Your task to perform on an android device: Search for "usb-c" on newegg, select the first entry, add it to the cart, then select checkout. Image 0: 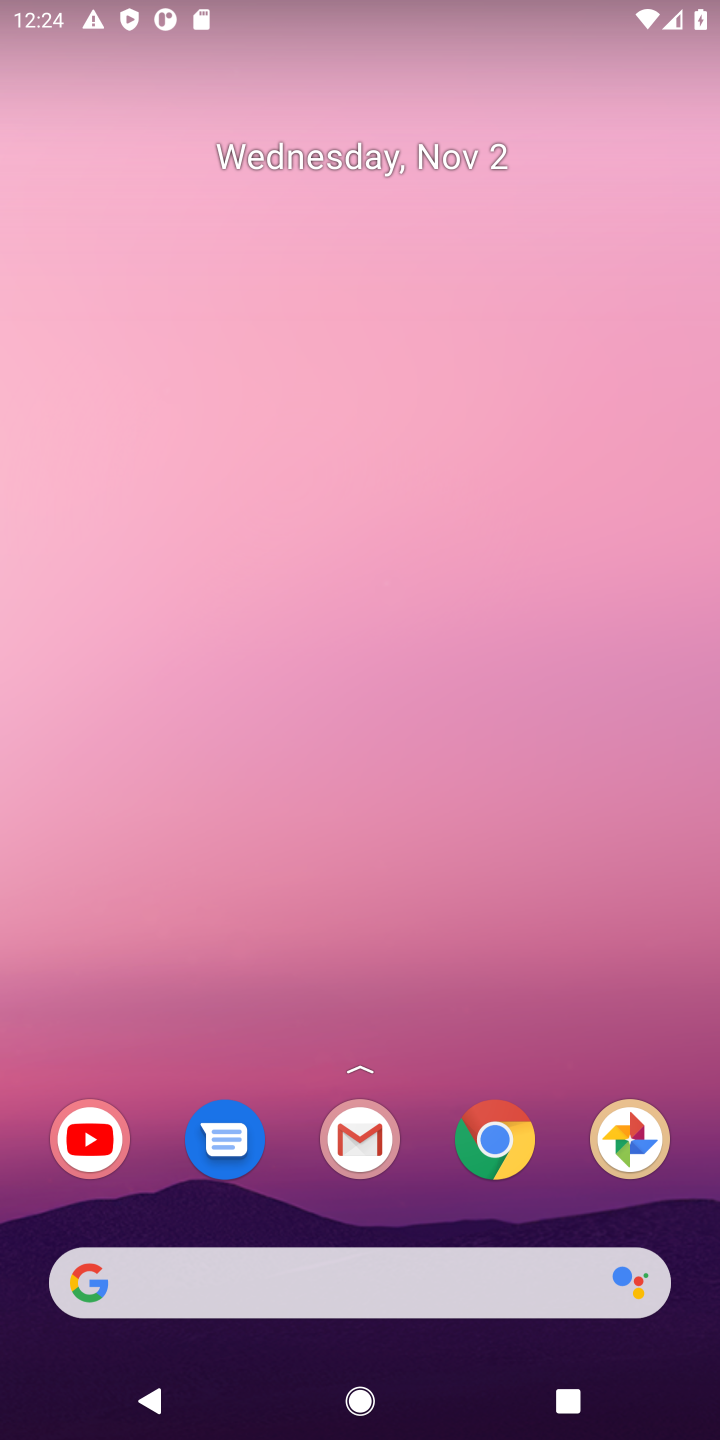
Step 0: press home button
Your task to perform on an android device: Search for "usb-c" on newegg, select the first entry, add it to the cart, then select checkout. Image 1: 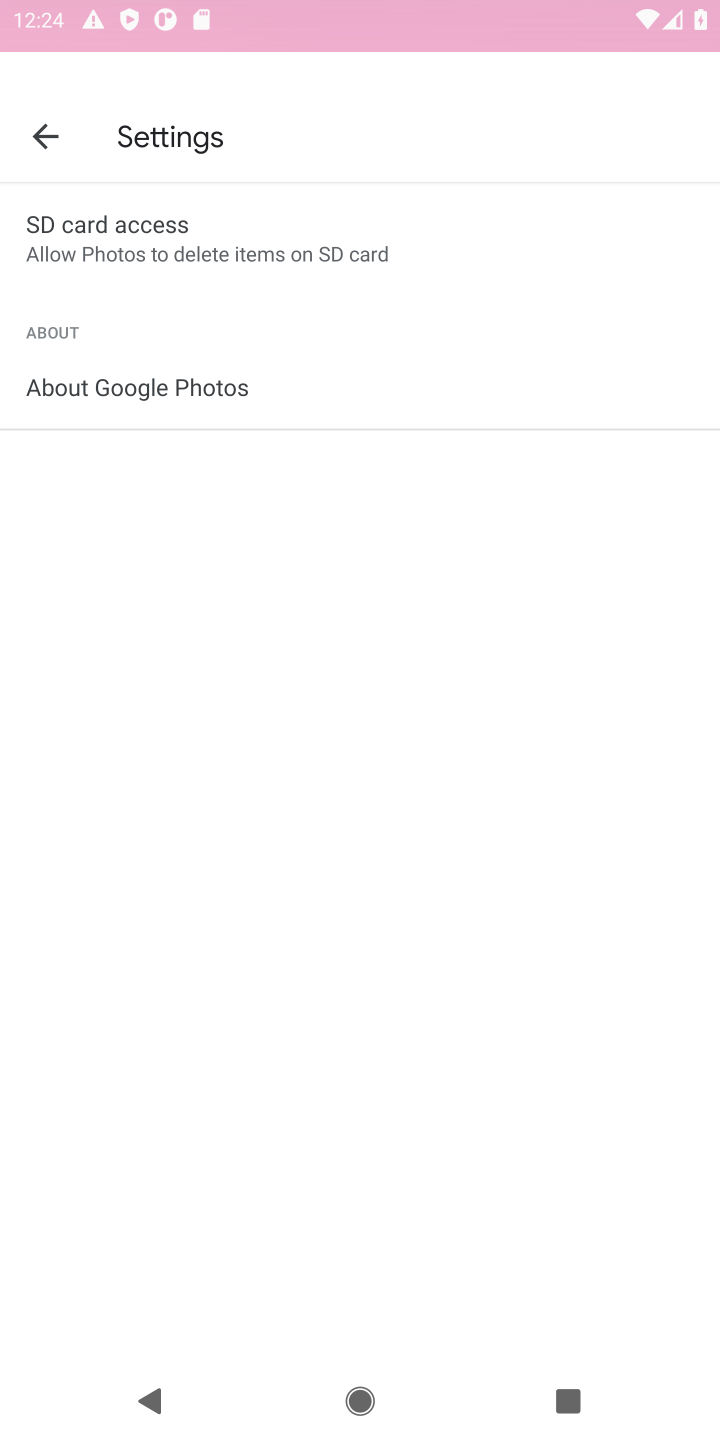
Step 1: press home button
Your task to perform on an android device: Search for "usb-c" on newegg, select the first entry, add it to the cart, then select checkout. Image 2: 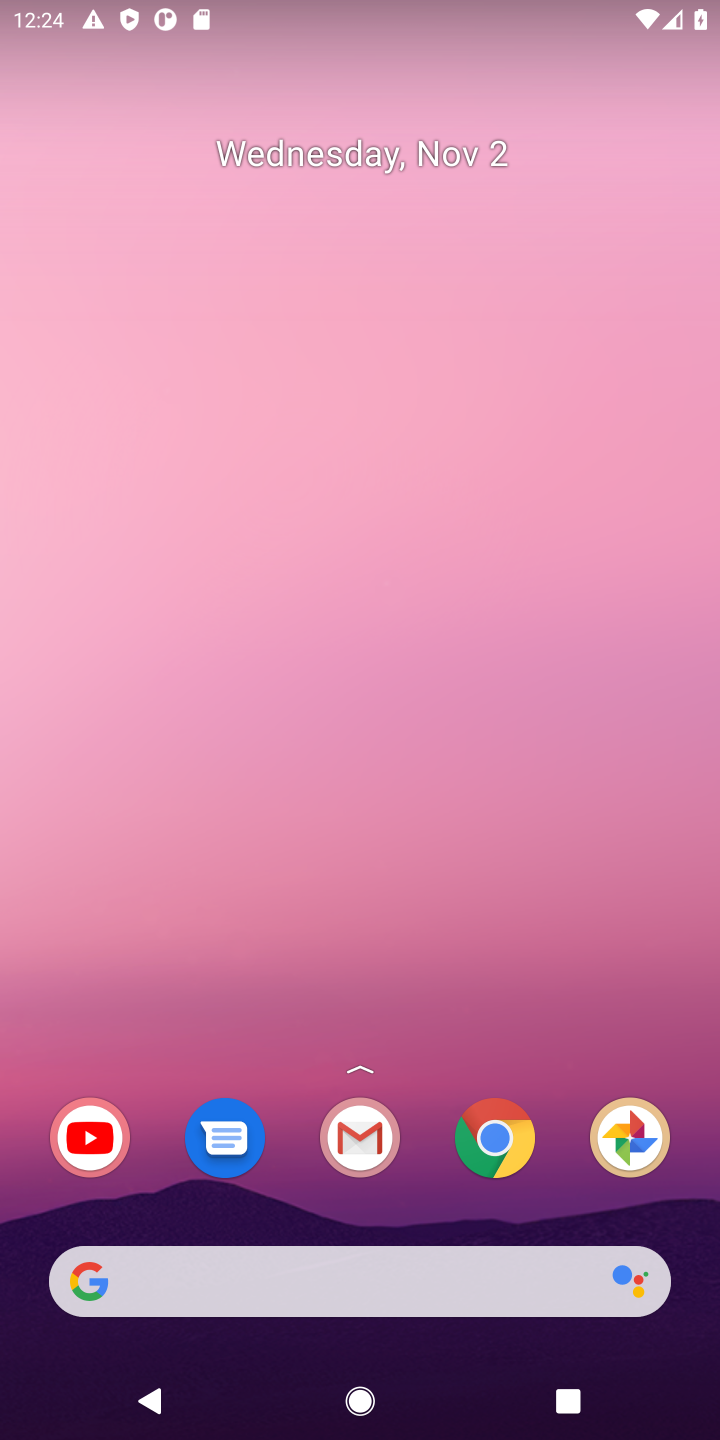
Step 2: click (148, 1279)
Your task to perform on an android device: Search for "usb-c" on newegg, select the first entry, add it to the cart, then select checkout. Image 3: 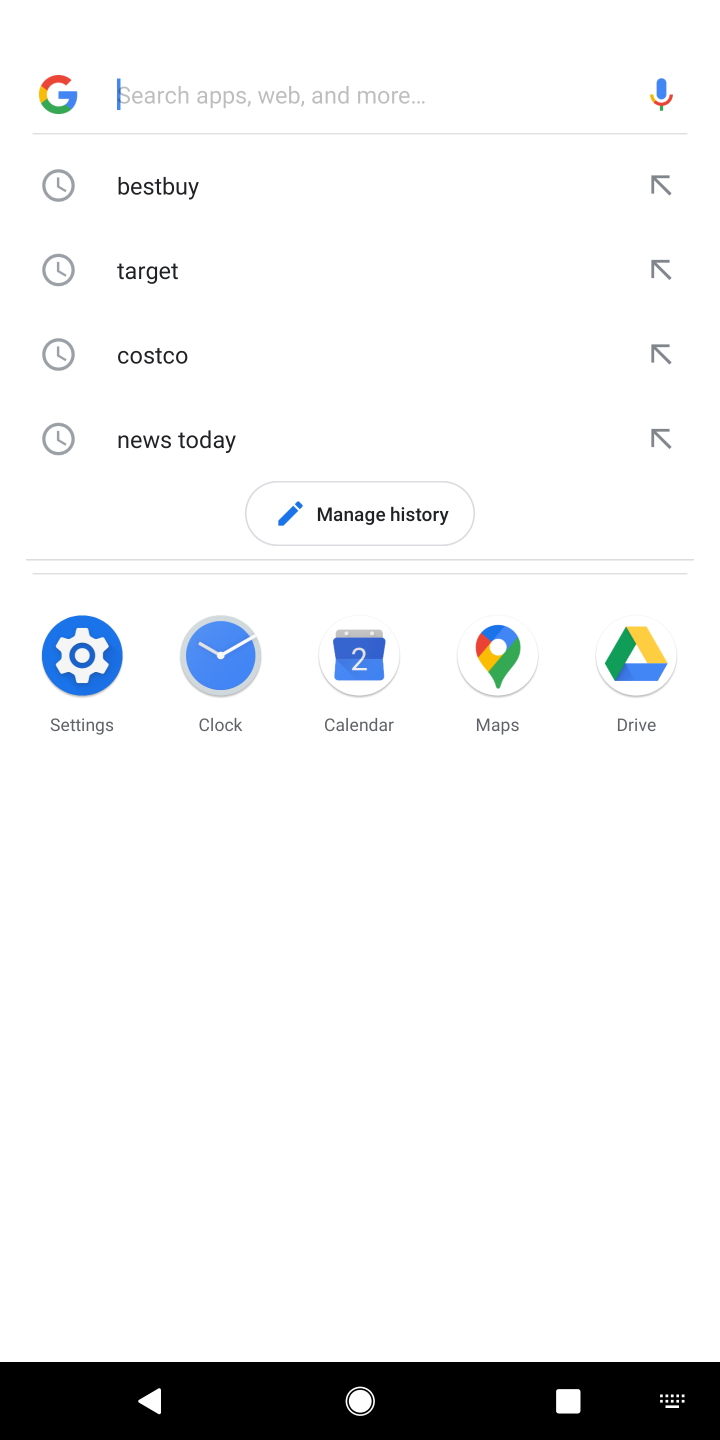
Step 3: press enter
Your task to perform on an android device: Search for "usb-c" on newegg, select the first entry, add it to the cart, then select checkout. Image 4: 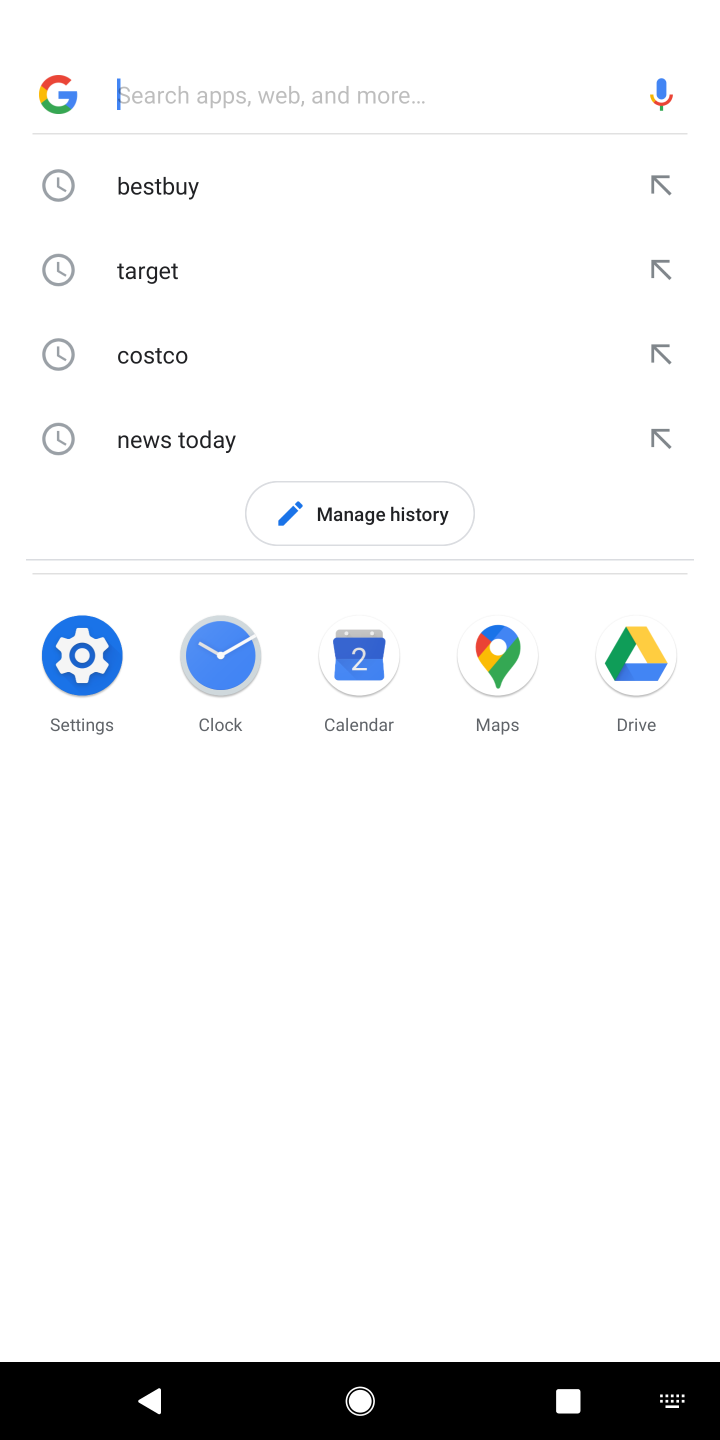
Step 4: type "newegg"
Your task to perform on an android device: Search for "usb-c" on newegg, select the first entry, add it to the cart, then select checkout. Image 5: 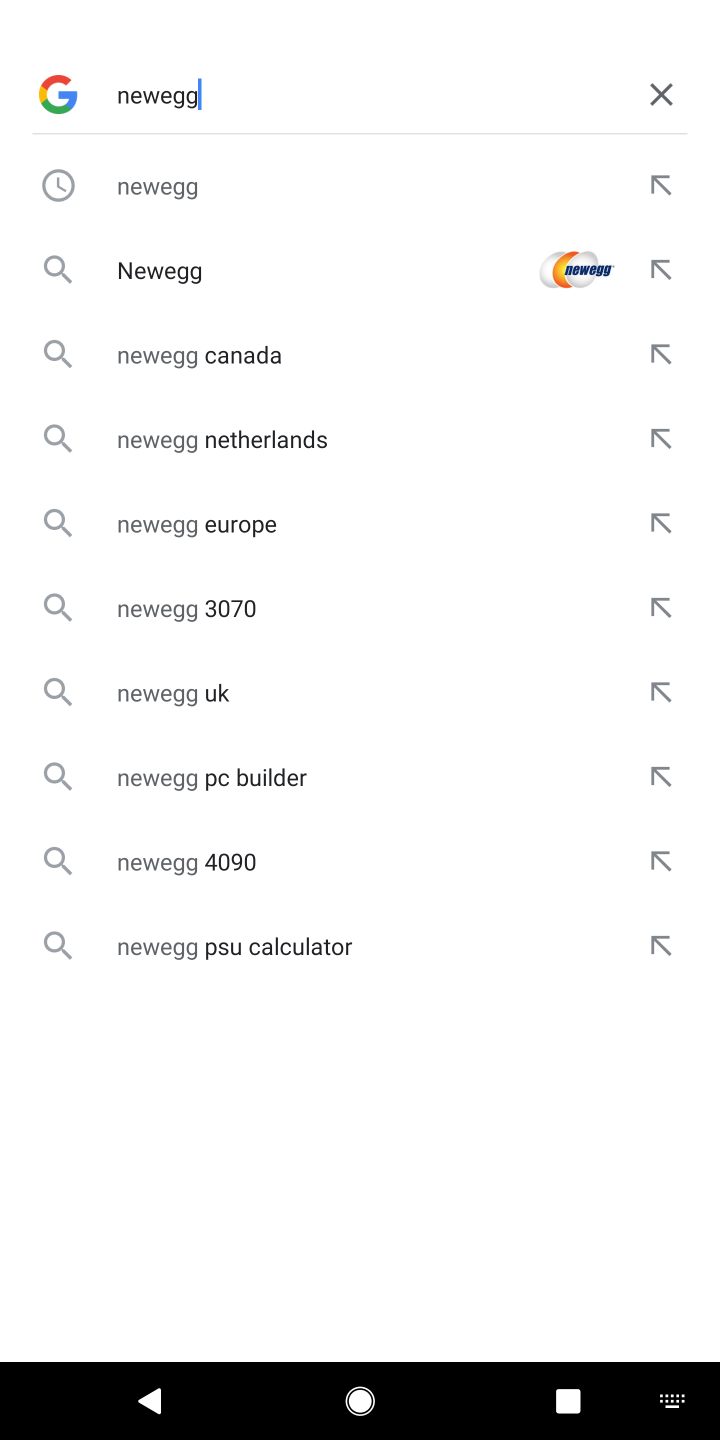
Step 5: press enter
Your task to perform on an android device: Search for "usb-c" on newegg, select the first entry, add it to the cart, then select checkout. Image 6: 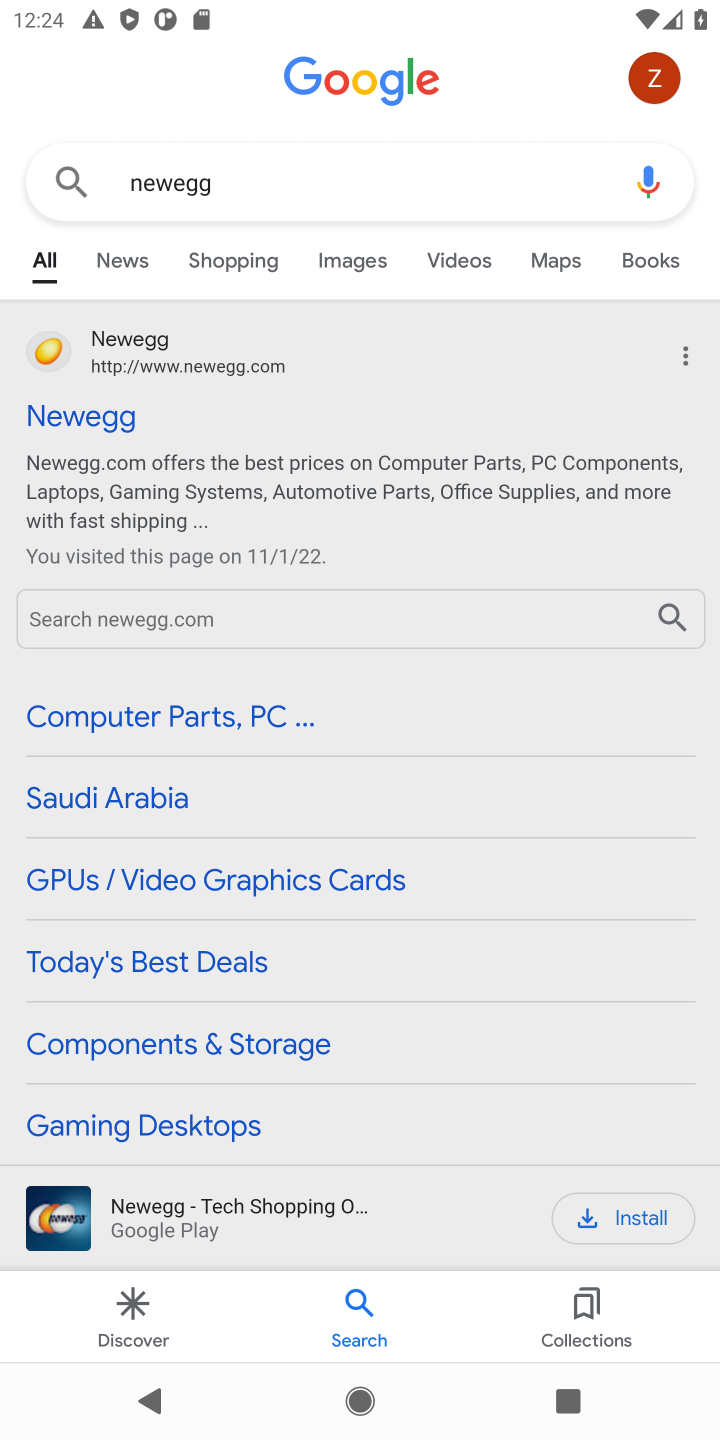
Step 6: click (50, 411)
Your task to perform on an android device: Search for "usb-c" on newegg, select the first entry, add it to the cart, then select checkout. Image 7: 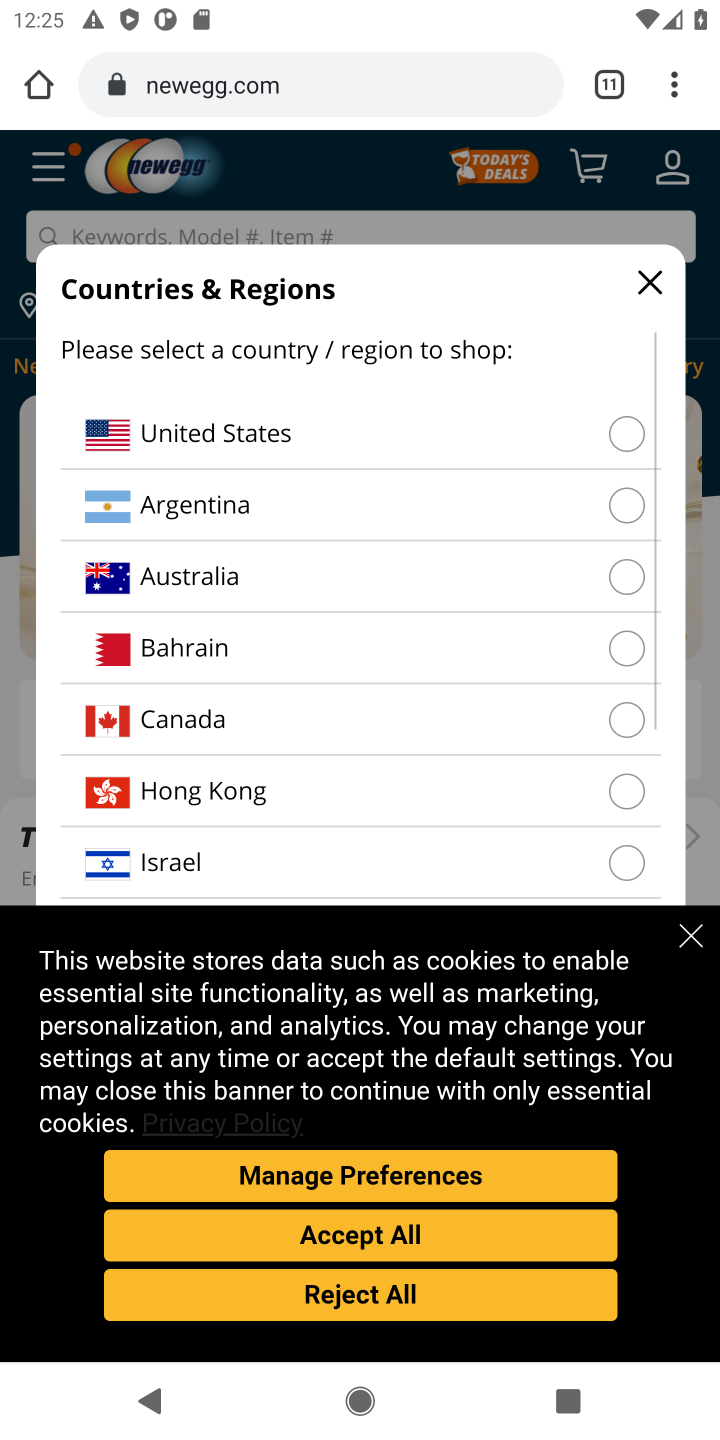
Step 7: click (355, 1232)
Your task to perform on an android device: Search for "usb-c" on newegg, select the first entry, add it to the cart, then select checkout. Image 8: 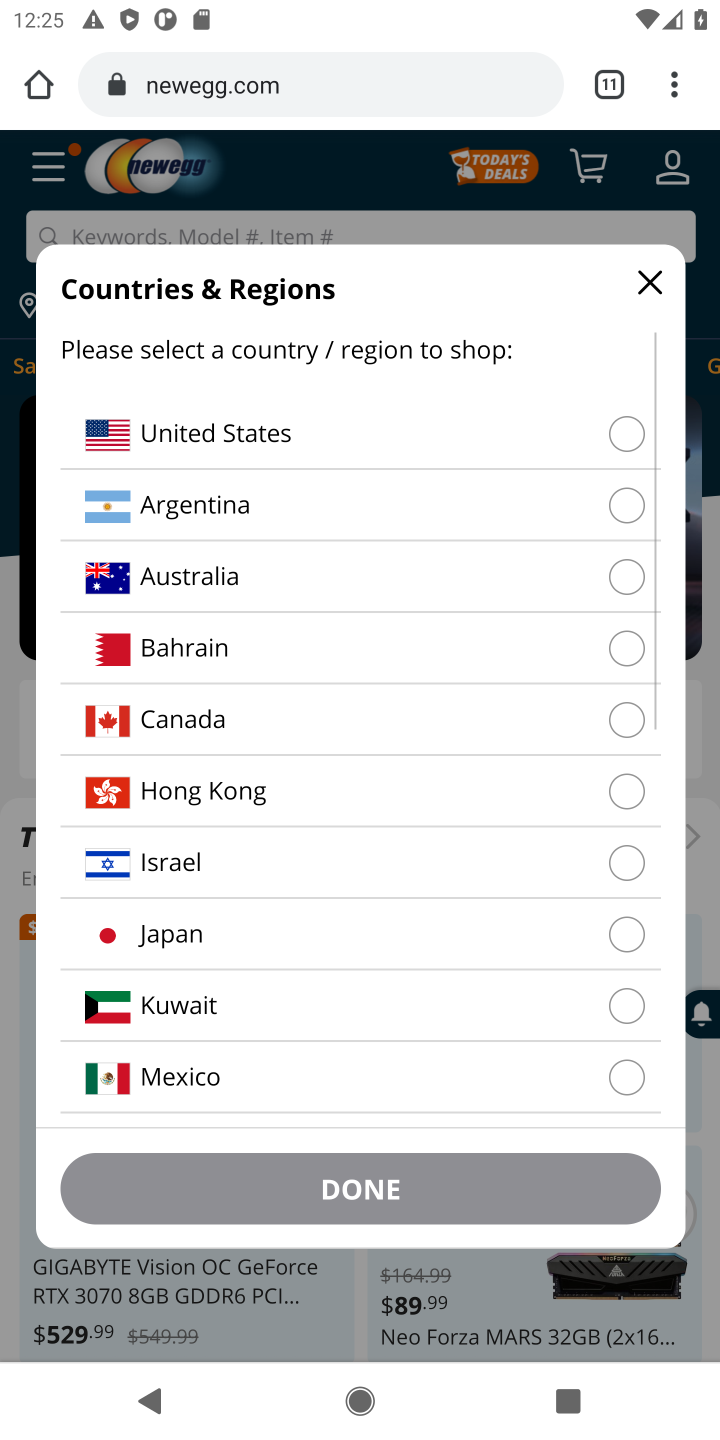
Step 8: click (656, 275)
Your task to perform on an android device: Search for "usb-c" on newegg, select the first entry, add it to the cart, then select checkout. Image 9: 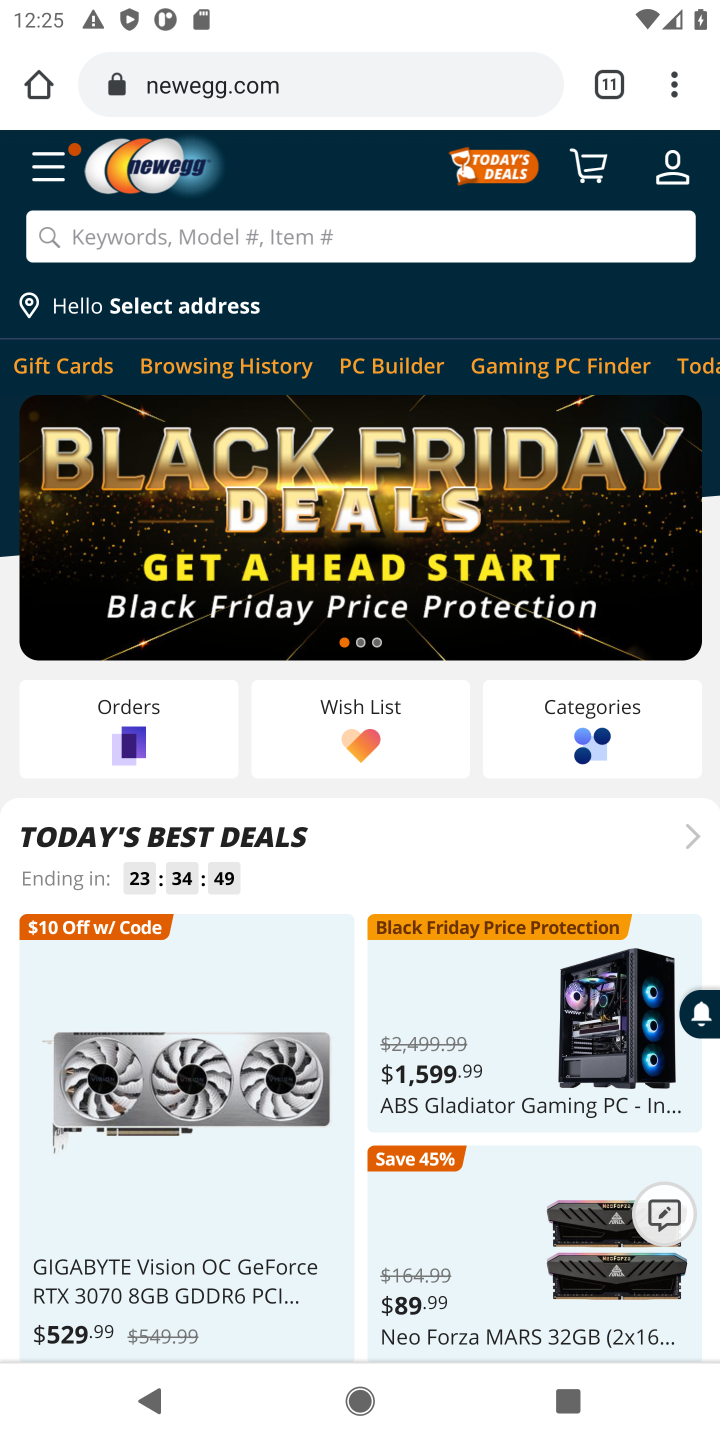
Step 9: click (211, 234)
Your task to perform on an android device: Search for "usb-c" on newegg, select the first entry, add it to the cart, then select checkout. Image 10: 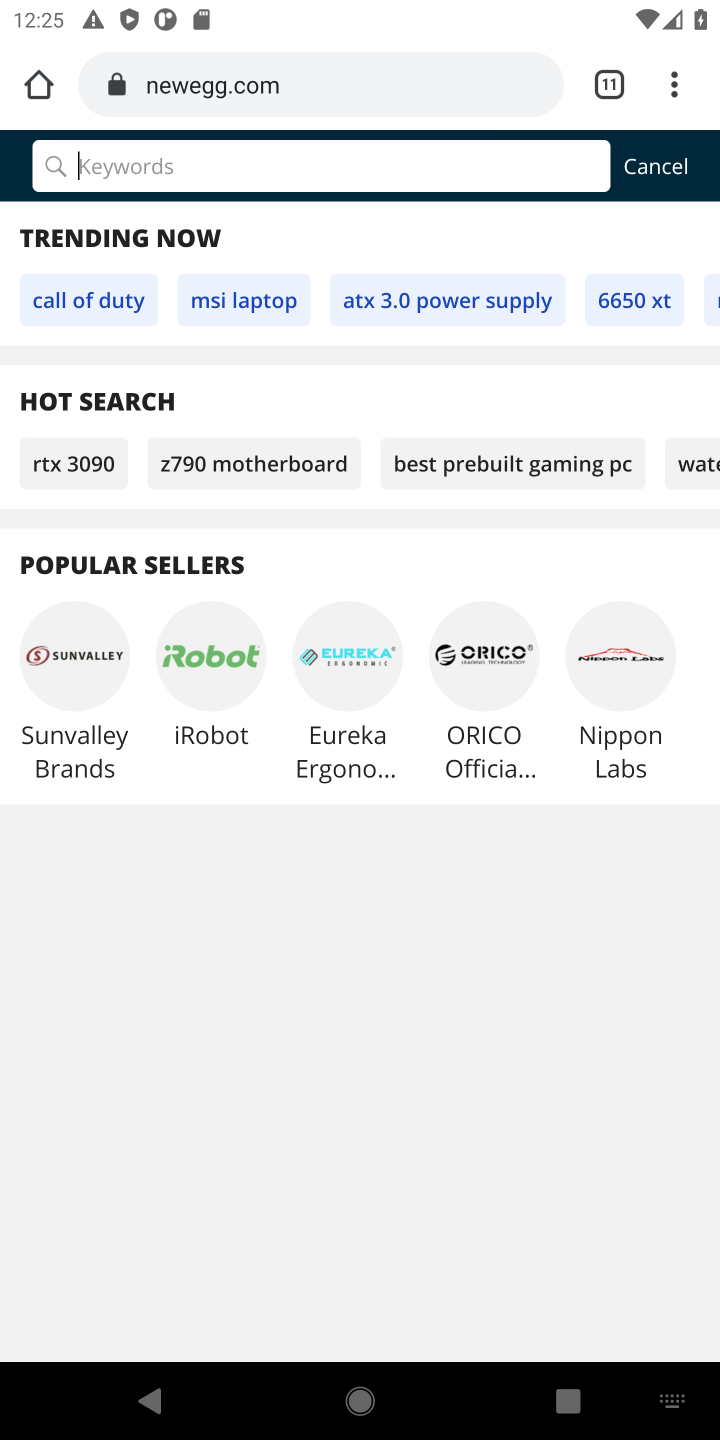
Step 10: press enter
Your task to perform on an android device: Search for "usb-c" on newegg, select the first entry, add it to the cart, then select checkout. Image 11: 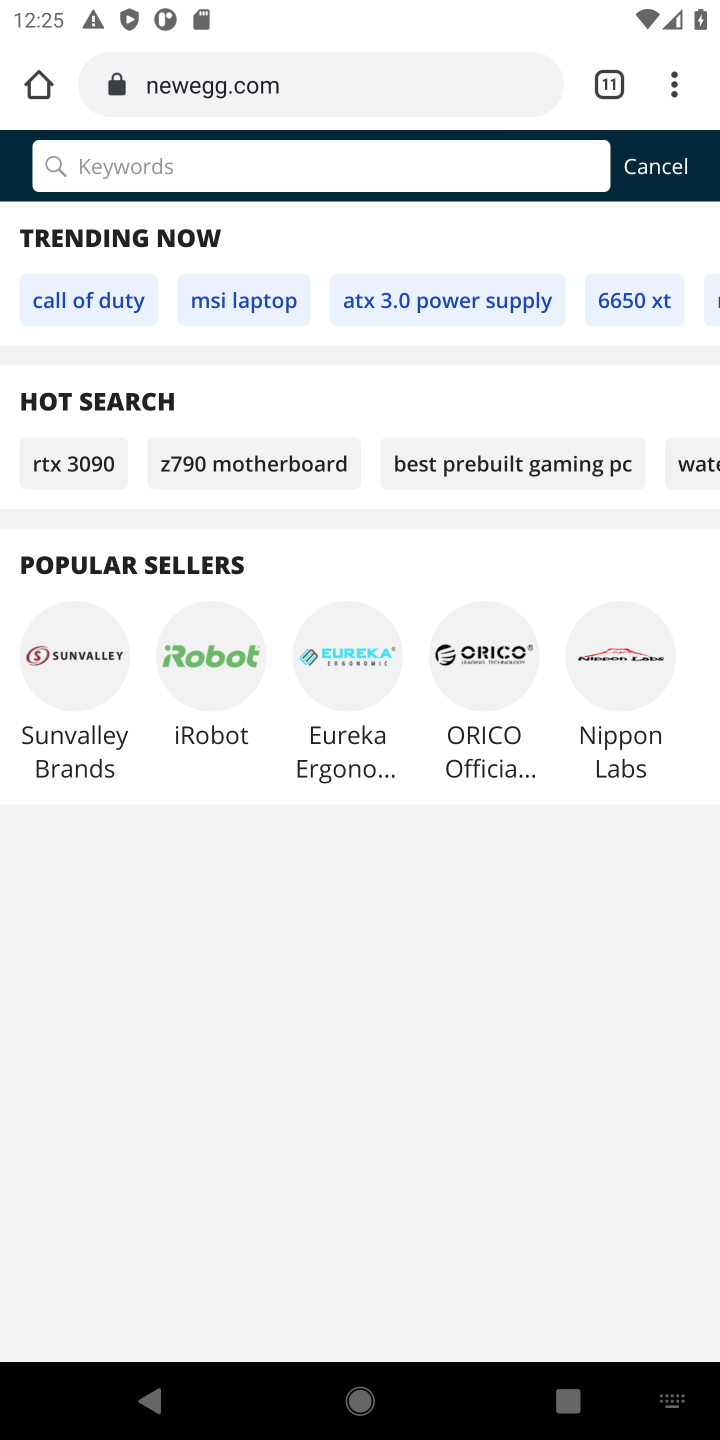
Step 11: type "usb c"
Your task to perform on an android device: Search for "usb-c" on newegg, select the first entry, add it to the cart, then select checkout. Image 12: 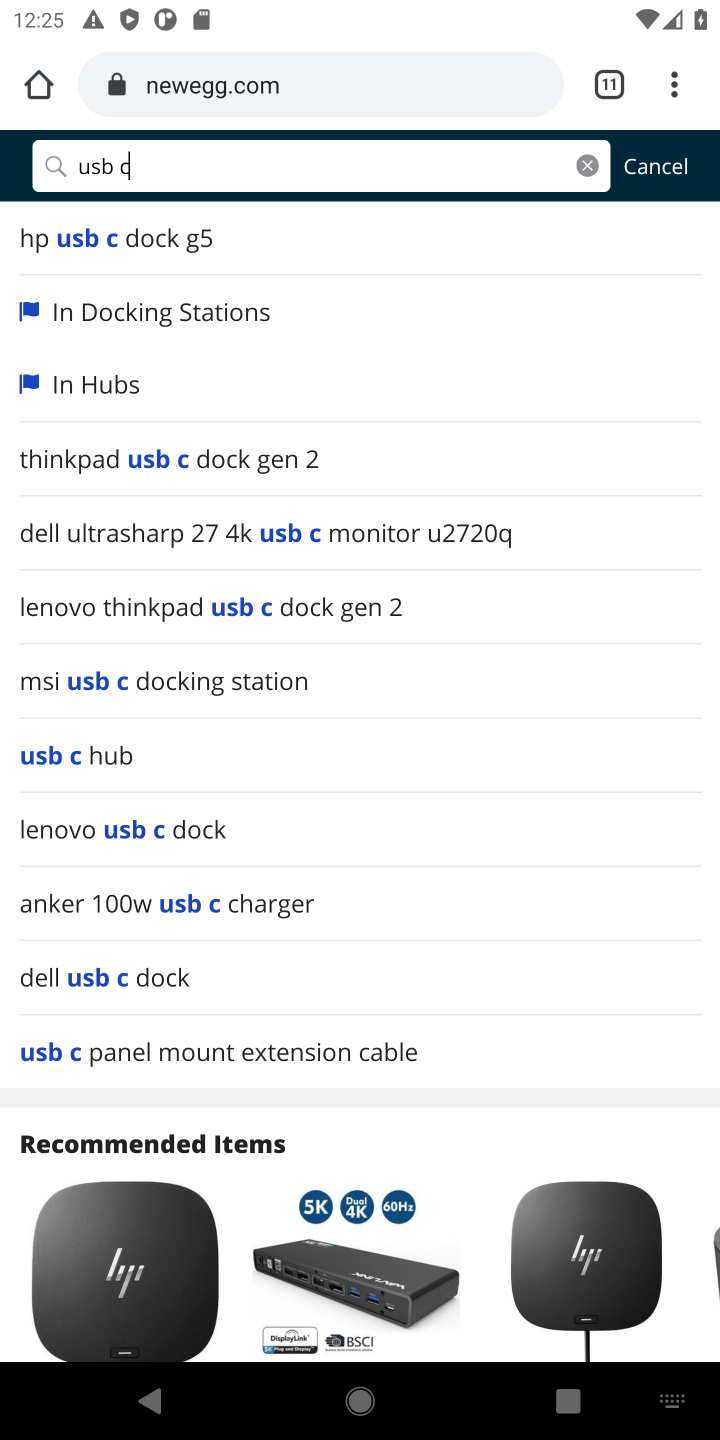
Step 12: press enter
Your task to perform on an android device: Search for "usb-c" on newegg, select the first entry, add it to the cart, then select checkout. Image 13: 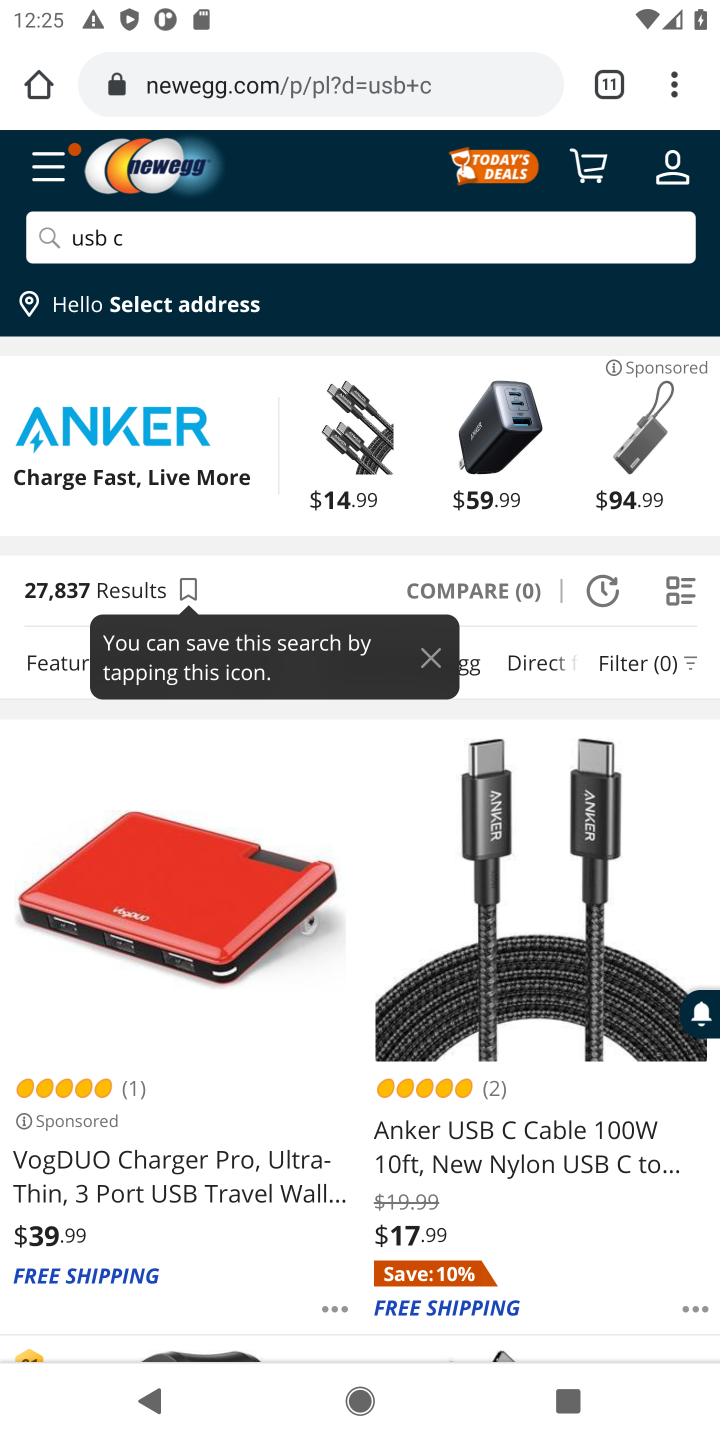
Step 13: click (524, 1152)
Your task to perform on an android device: Search for "usb-c" on newegg, select the first entry, add it to the cart, then select checkout. Image 14: 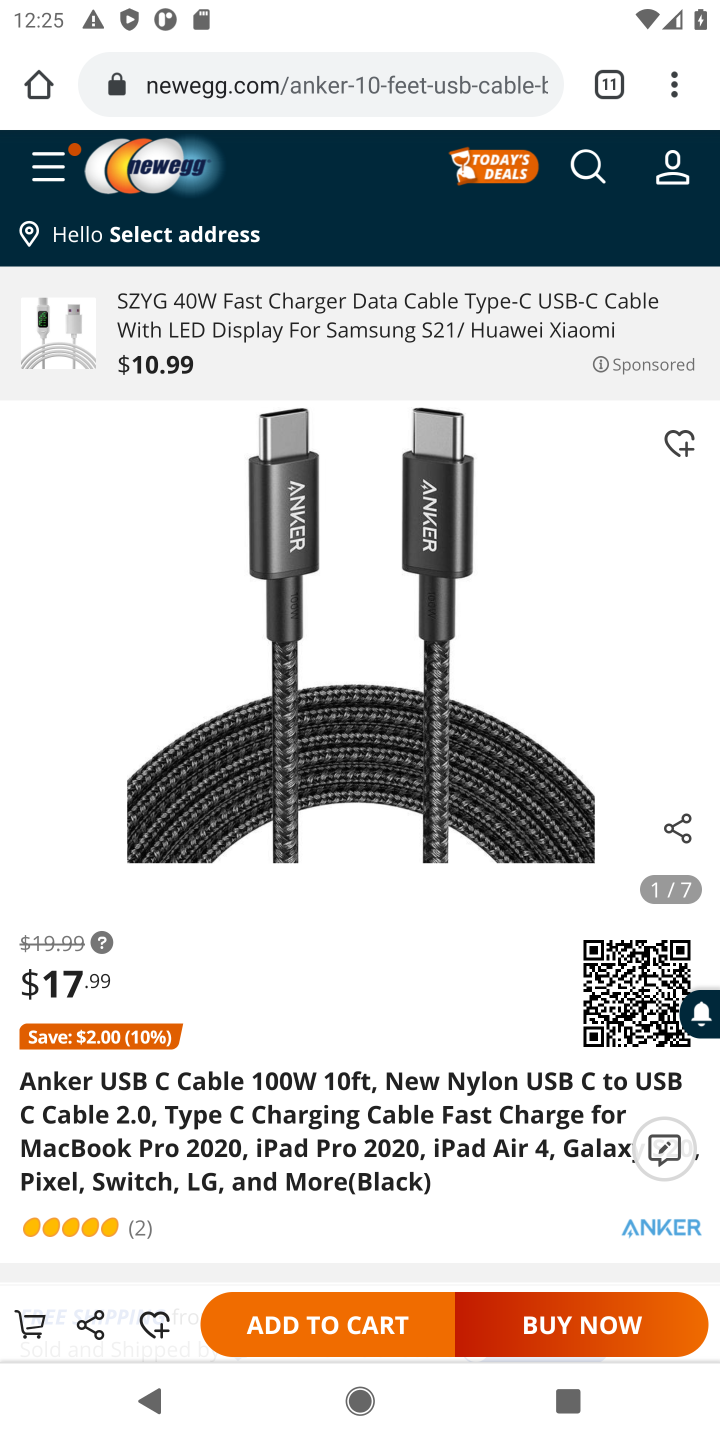
Step 14: click (272, 1325)
Your task to perform on an android device: Search for "usb-c" on newegg, select the first entry, add it to the cart, then select checkout. Image 15: 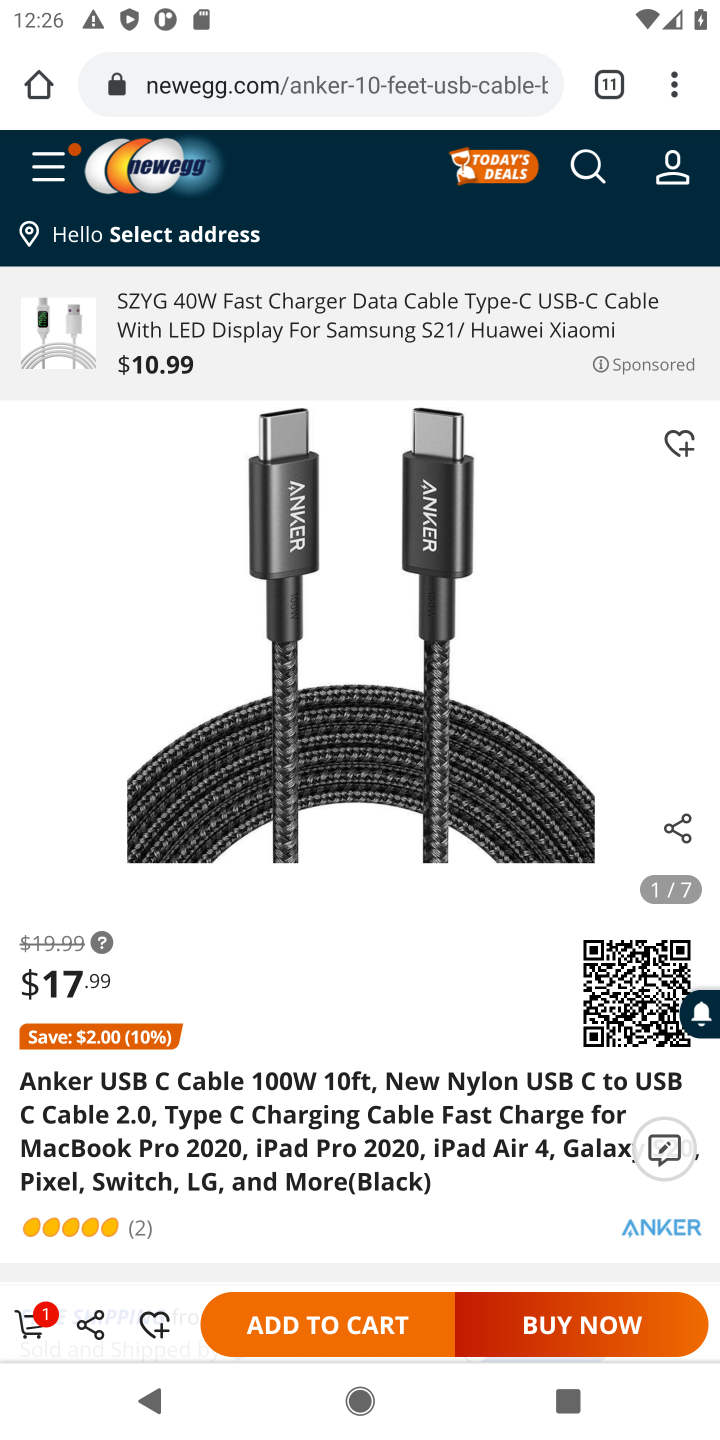
Step 15: click (40, 1314)
Your task to perform on an android device: Search for "usb-c" on newegg, select the first entry, add it to the cart, then select checkout. Image 16: 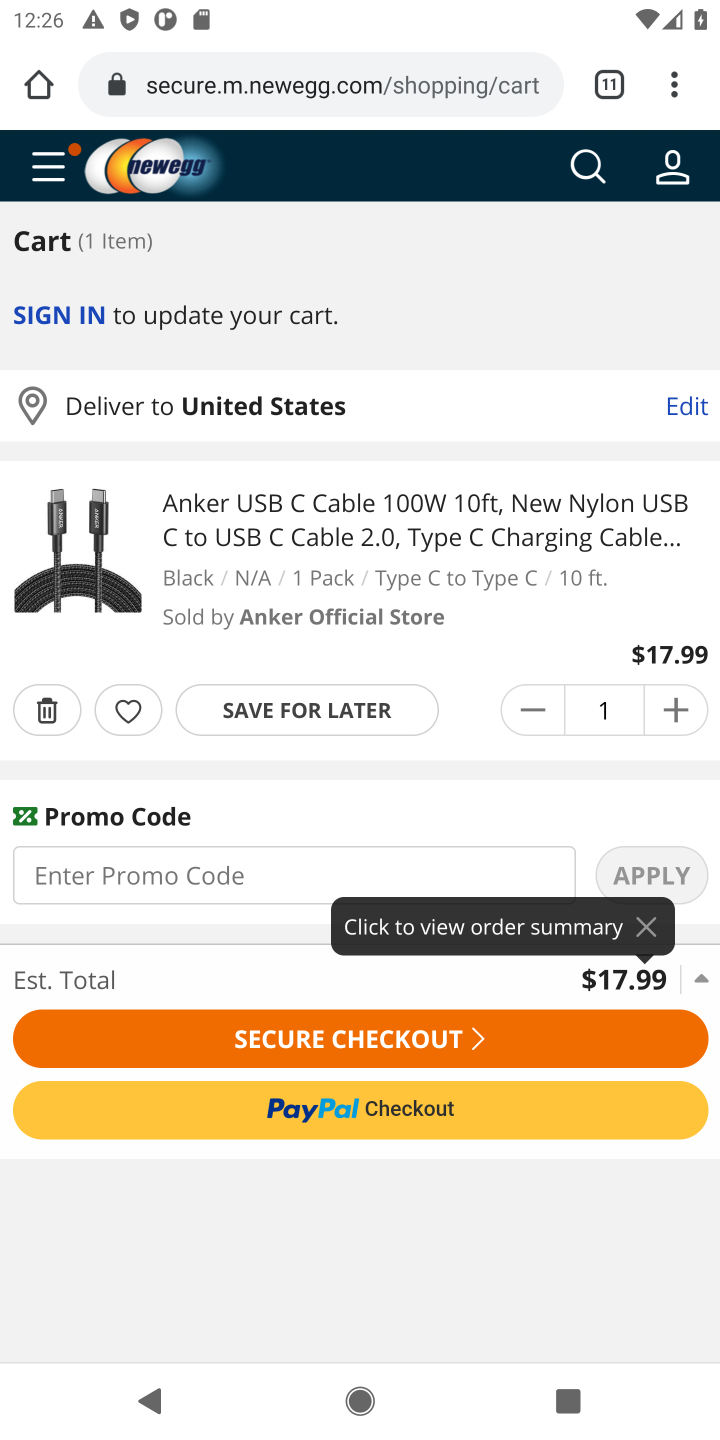
Step 16: click (453, 1031)
Your task to perform on an android device: Search for "usb-c" on newegg, select the first entry, add it to the cart, then select checkout. Image 17: 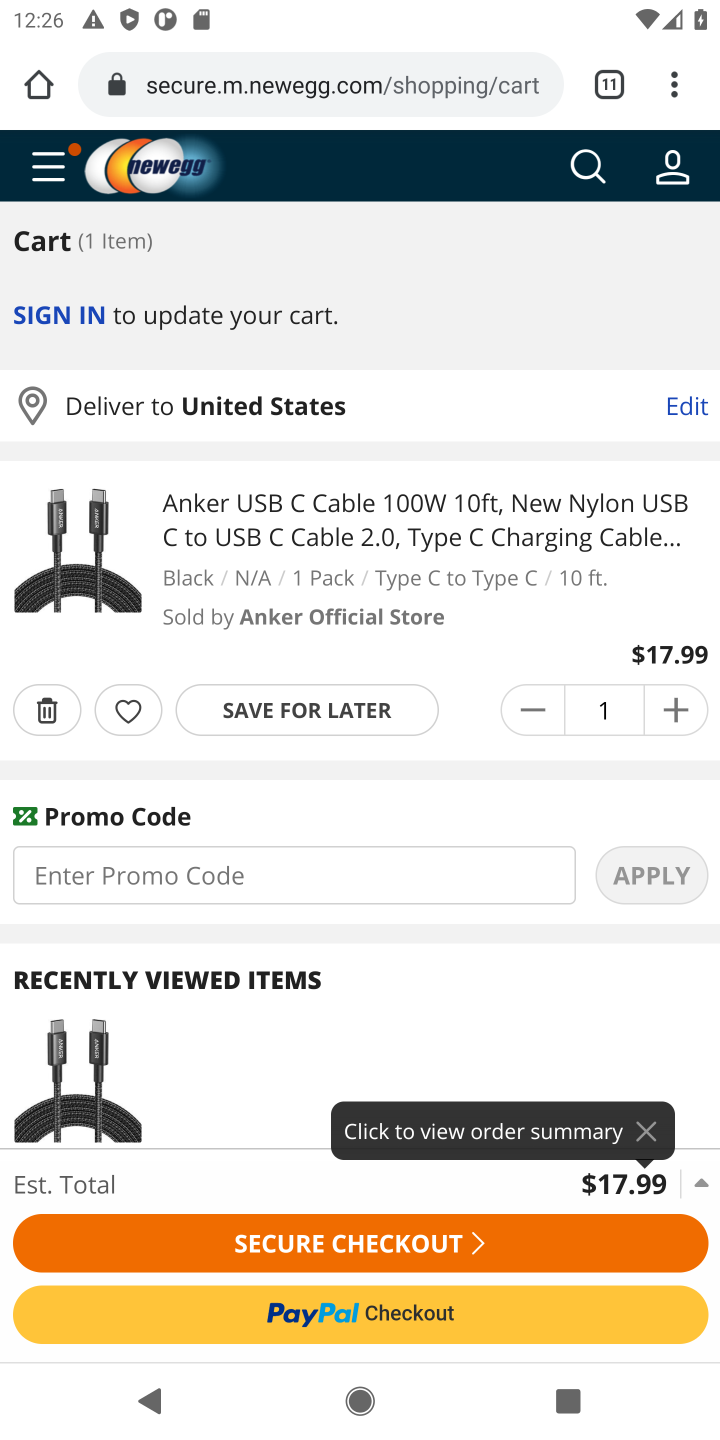
Step 17: click (428, 1243)
Your task to perform on an android device: Search for "usb-c" on newegg, select the first entry, add it to the cart, then select checkout. Image 18: 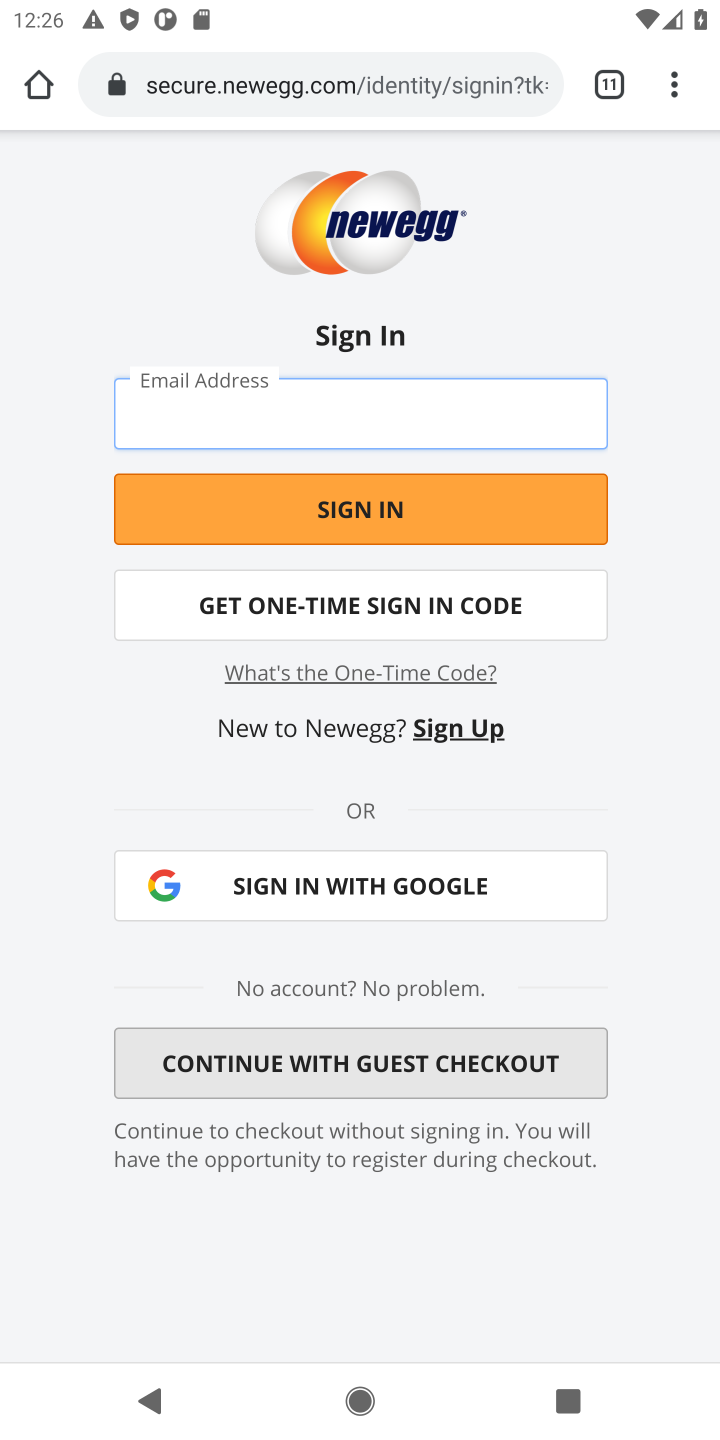
Step 18: task complete